Your task to perform on an android device: Open ESPN.com Image 0: 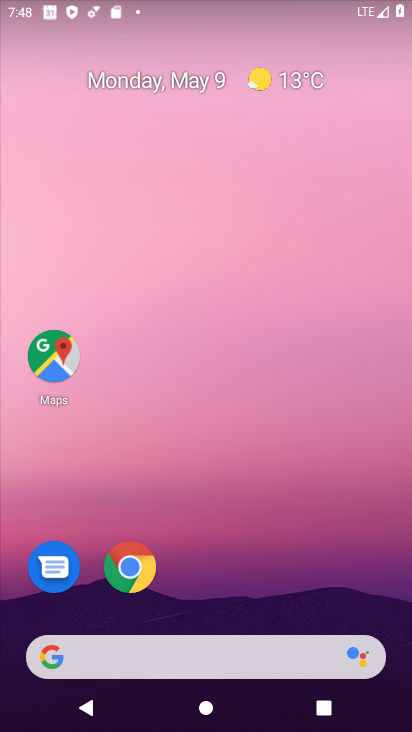
Step 0: click (245, 655)
Your task to perform on an android device: Open ESPN.com Image 1: 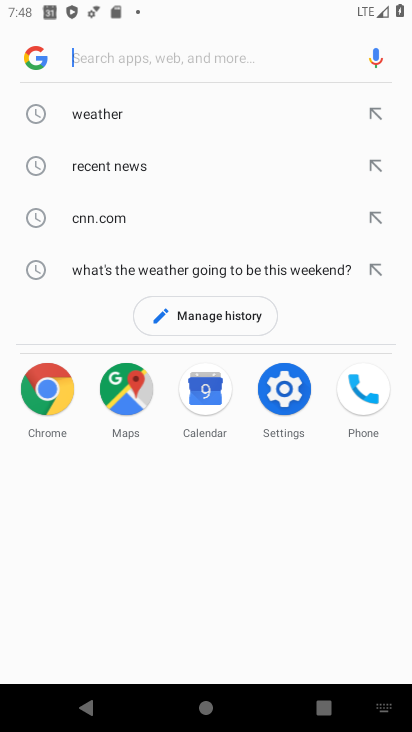
Step 1: type "espn.com"
Your task to perform on an android device: Open ESPN.com Image 2: 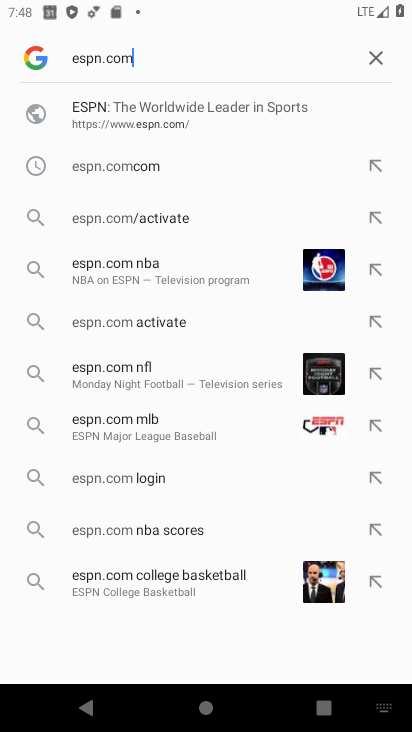
Step 2: click (31, 113)
Your task to perform on an android device: Open ESPN.com Image 3: 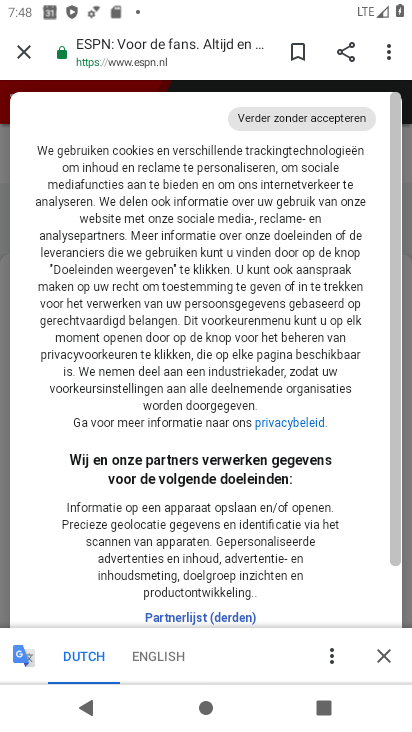
Step 3: task complete